Your task to perform on an android device: Go to network settings Image 0: 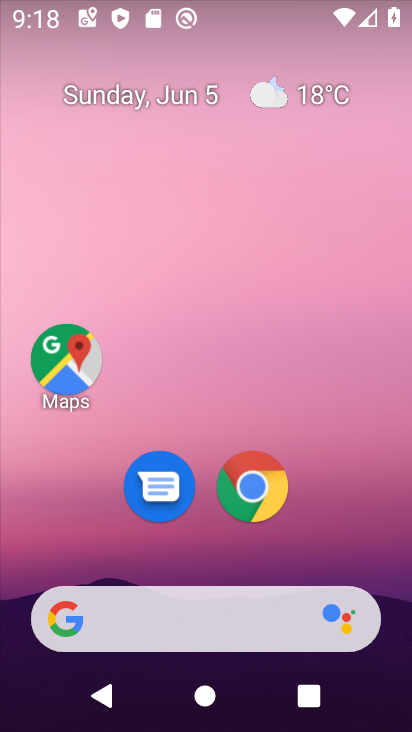
Step 0: drag from (345, 508) to (330, 140)
Your task to perform on an android device: Go to network settings Image 1: 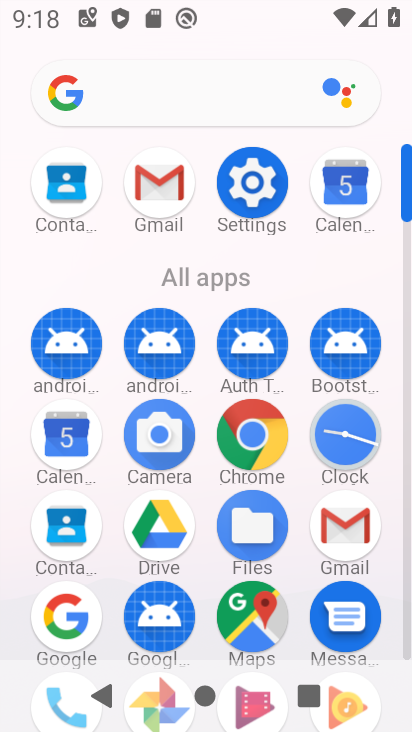
Step 1: click (256, 212)
Your task to perform on an android device: Go to network settings Image 2: 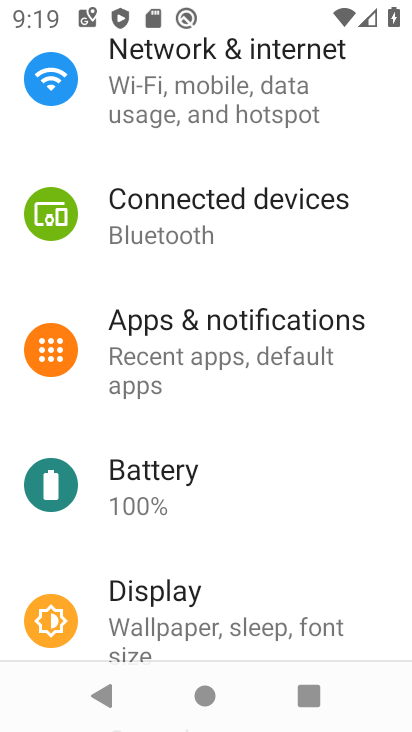
Step 2: drag from (257, 183) to (255, 464)
Your task to perform on an android device: Go to network settings Image 3: 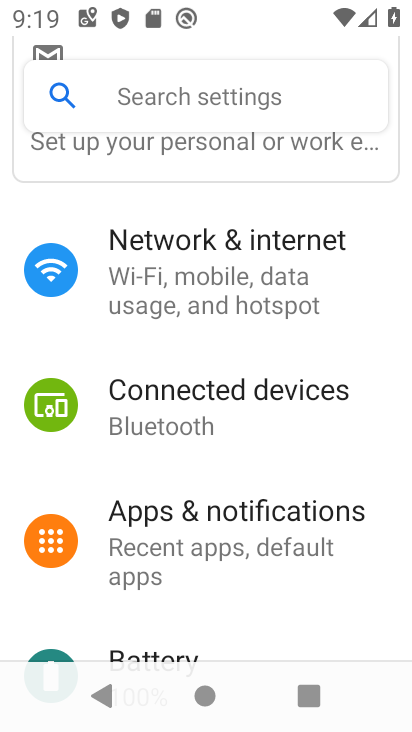
Step 3: click (212, 98)
Your task to perform on an android device: Go to network settings Image 4: 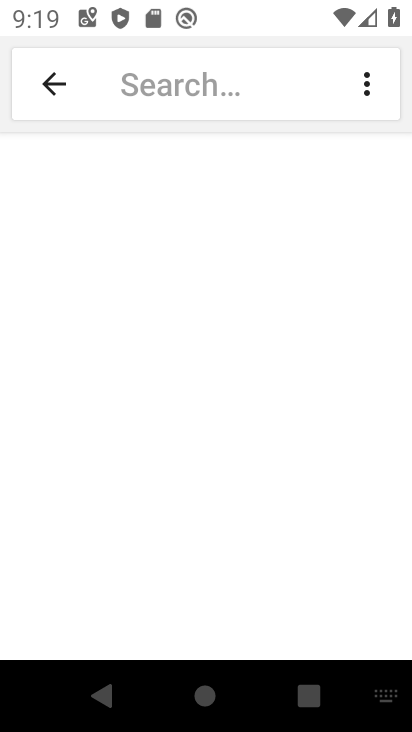
Step 4: click (46, 63)
Your task to perform on an android device: Go to network settings Image 5: 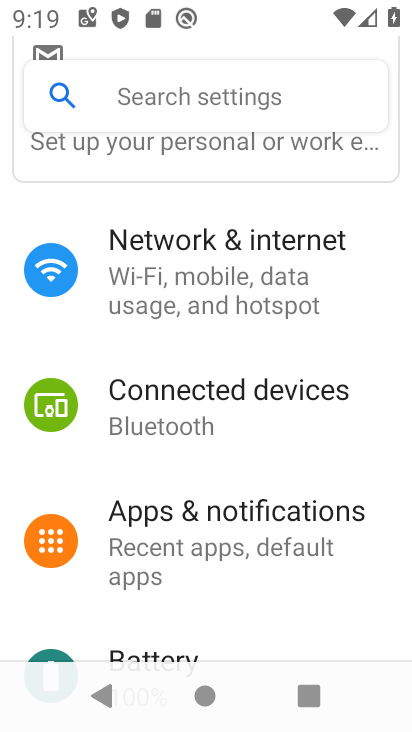
Step 5: drag from (163, 187) to (166, 319)
Your task to perform on an android device: Go to network settings Image 6: 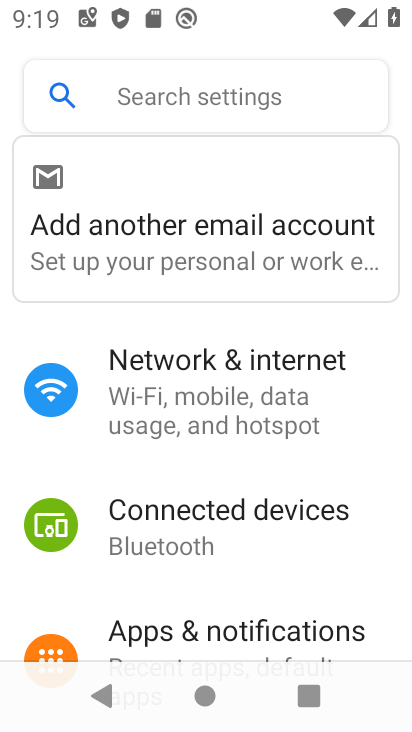
Step 6: click (159, 383)
Your task to perform on an android device: Go to network settings Image 7: 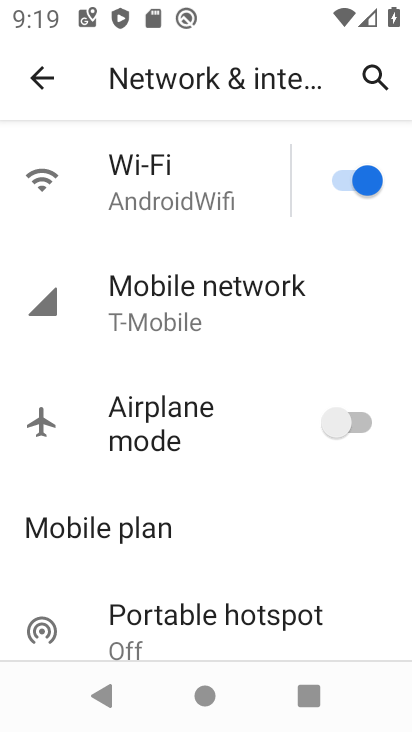
Step 7: click (260, 298)
Your task to perform on an android device: Go to network settings Image 8: 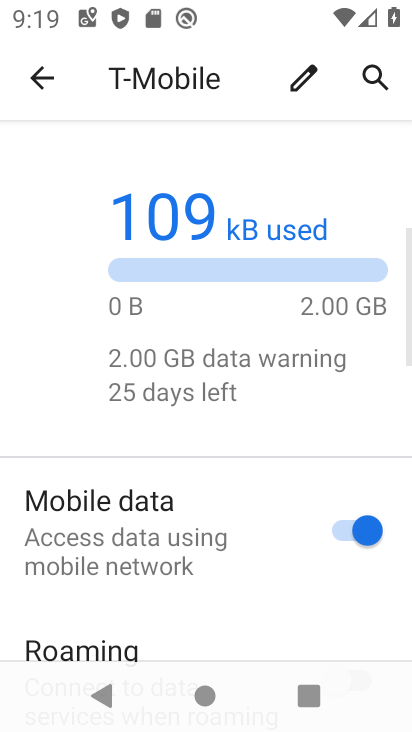
Step 8: task complete